Your task to perform on an android device: Open calendar and show me the third week of next month Image 0: 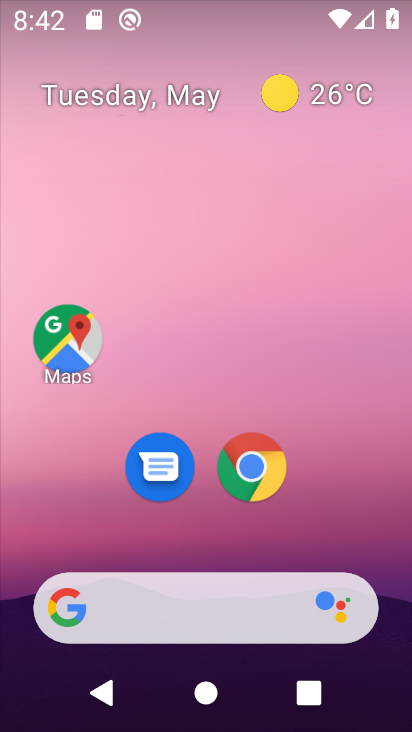
Step 0: drag from (387, 661) to (333, 202)
Your task to perform on an android device: Open calendar and show me the third week of next month Image 1: 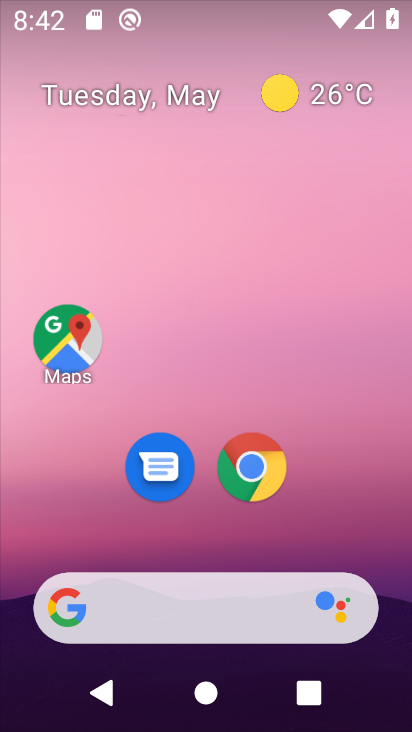
Step 1: drag from (396, 450) to (381, 257)
Your task to perform on an android device: Open calendar and show me the third week of next month Image 2: 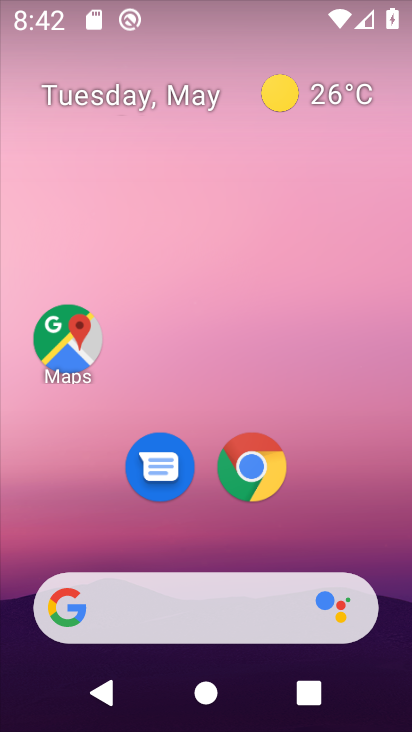
Step 2: drag from (395, 686) to (357, 243)
Your task to perform on an android device: Open calendar and show me the third week of next month Image 3: 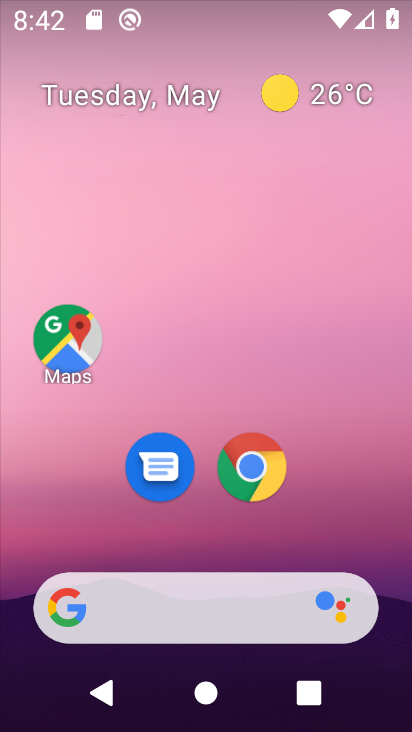
Step 3: drag from (386, 684) to (310, 202)
Your task to perform on an android device: Open calendar and show me the third week of next month Image 4: 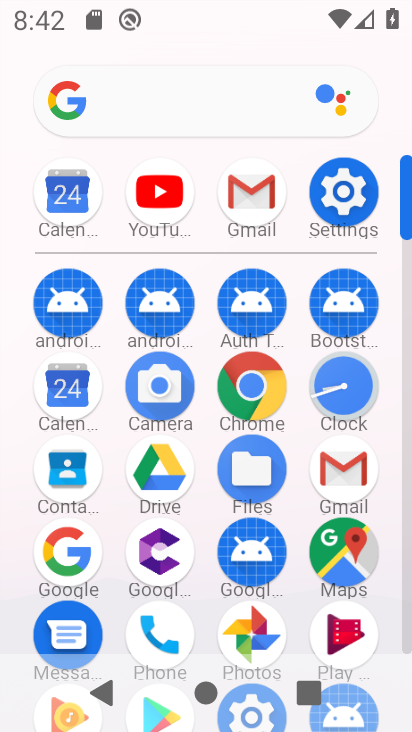
Step 4: click (84, 196)
Your task to perform on an android device: Open calendar and show me the third week of next month Image 5: 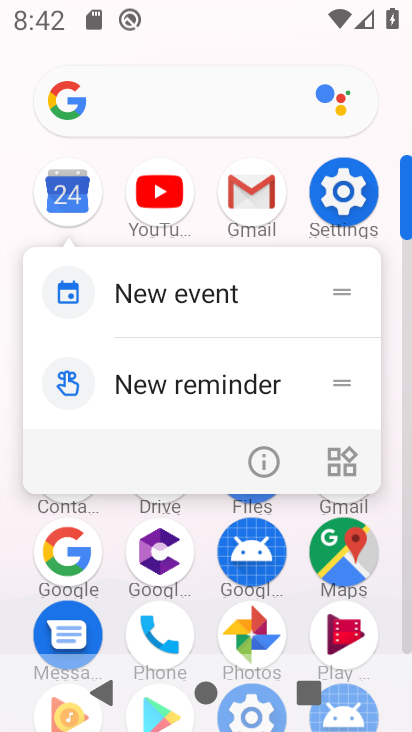
Step 5: click (80, 192)
Your task to perform on an android device: Open calendar and show me the third week of next month Image 6: 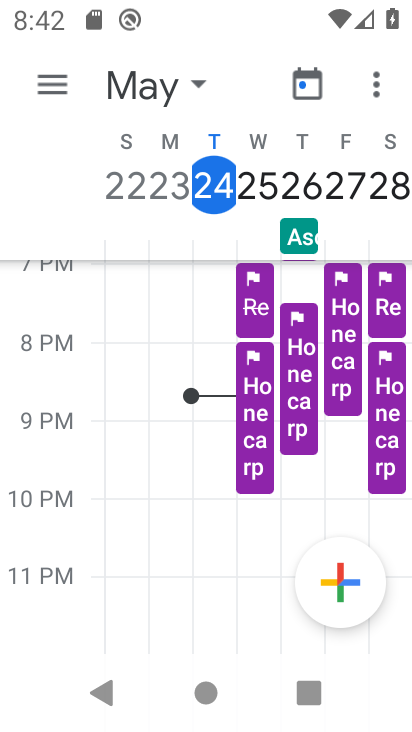
Step 6: click (190, 81)
Your task to perform on an android device: Open calendar and show me the third week of next month Image 7: 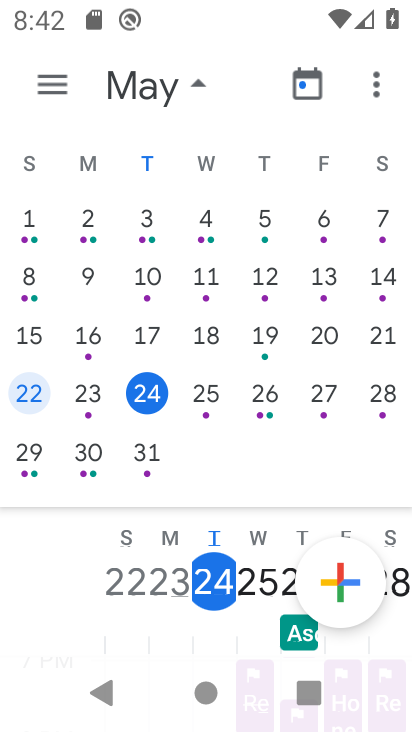
Step 7: drag from (402, 242) to (52, 218)
Your task to perform on an android device: Open calendar and show me the third week of next month Image 8: 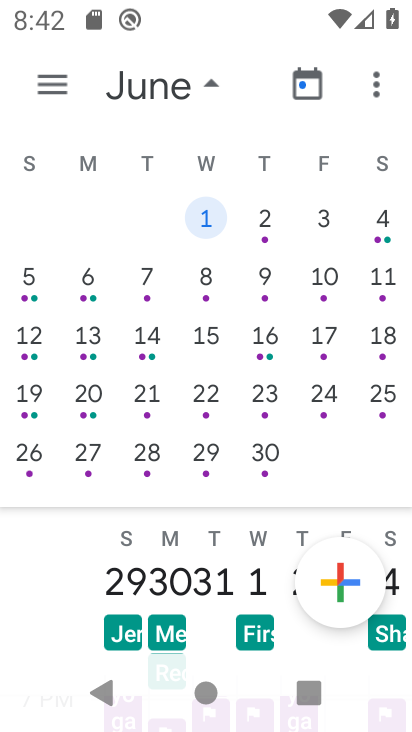
Step 8: click (265, 333)
Your task to perform on an android device: Open calendar and show me the third week of next month Image 9: 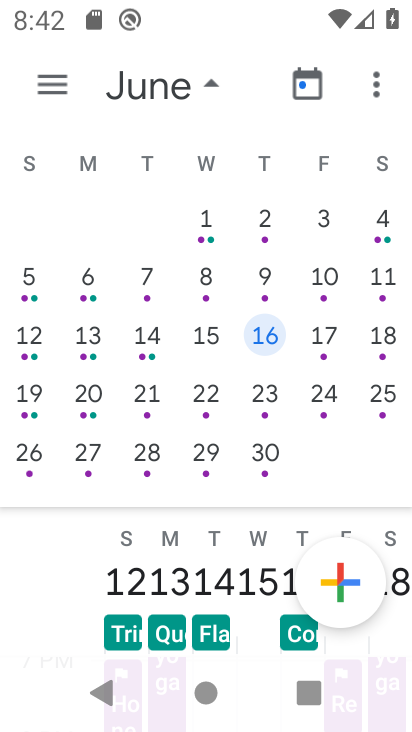
Step 9: click (60, 78)
Your task to perform on an android device: Open calendar and show me the third week of next month Image 10: 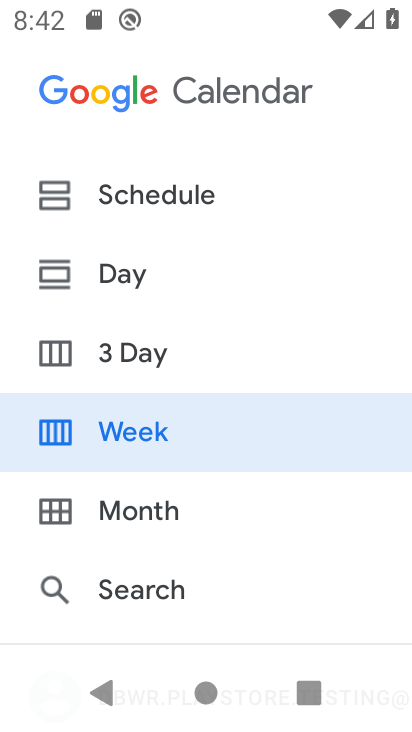
Step 10: click (77, 430)
Your task to perform on an android device: Open calendar and show me the third week of next month Image 11: 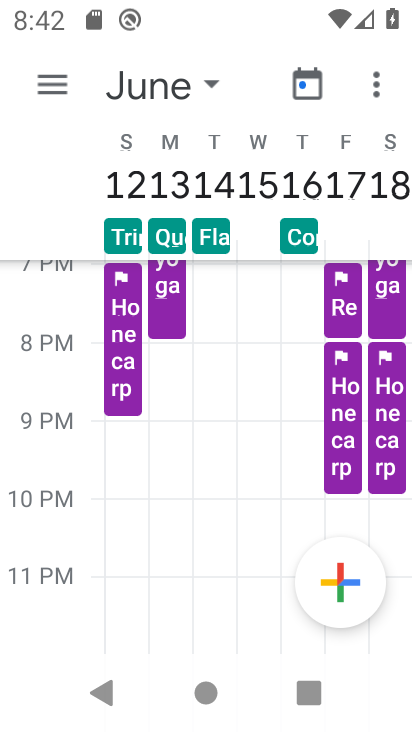
Step 11: task complete